Your task to perform on an android device: all mails in gmail Image 0: 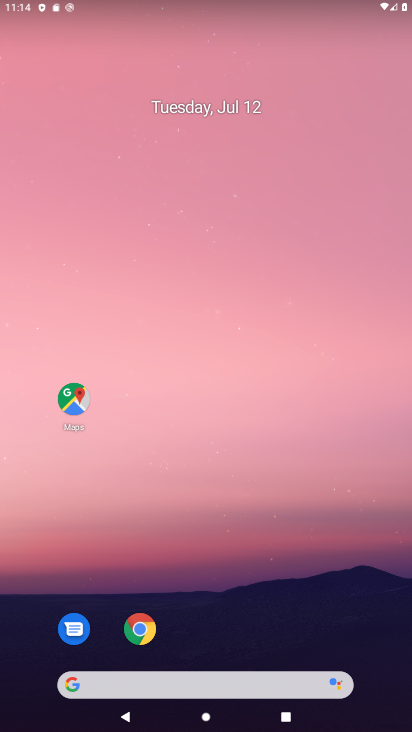
Step 0: drag from (283, 554) to (152, 1)
Your task to perform on an android device: all mails in gmail Image 1: 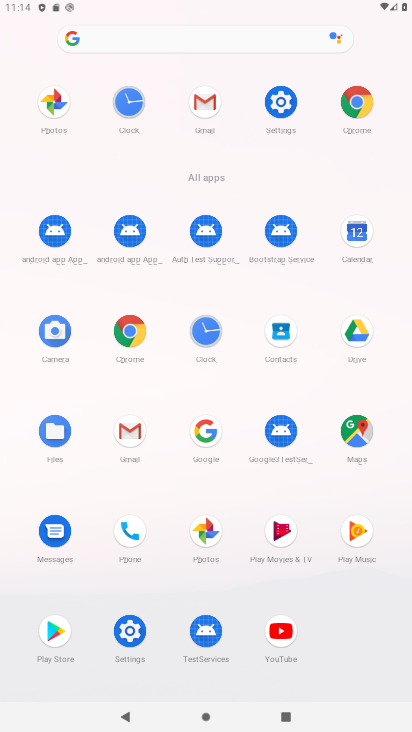
Step 1: click (199, 110)
Your task to perform on an android device: all mails in gmail Image 2: 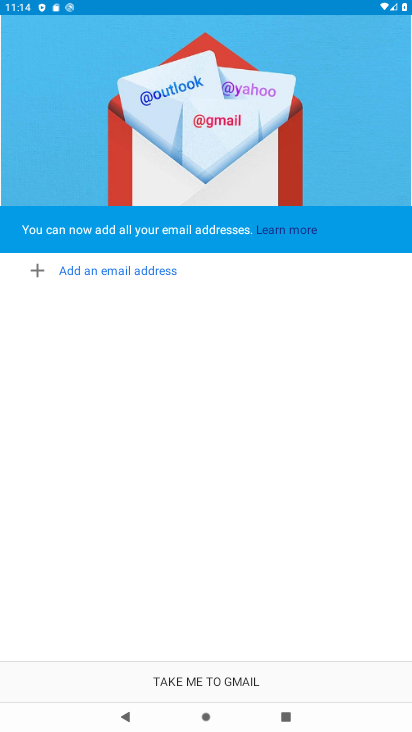
Step 2: click (222, 676)
Your task to perform on an android device: all mails in gmail Image 3: 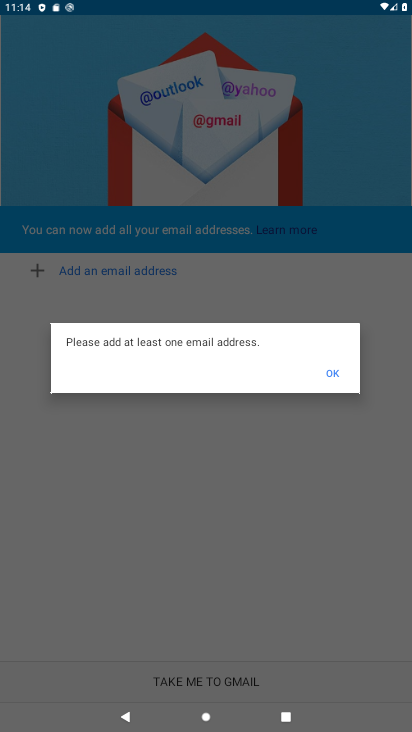
Step 3: task complete